Your task to perform on an android device: Open Google Maps Image 0: 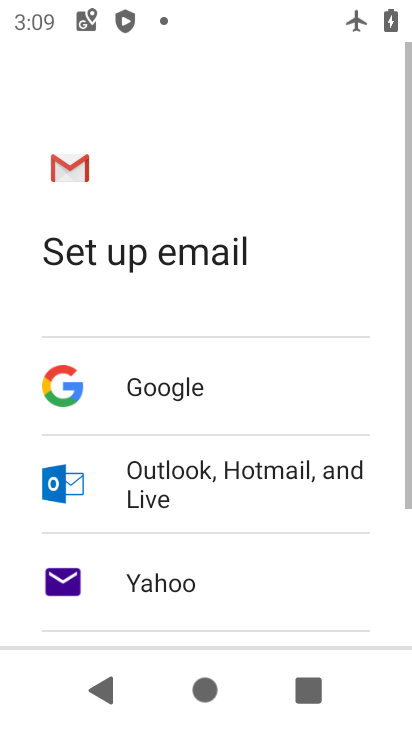
Step 0: press home button
Your task to perform on an android device: Open Google Maps Image 1: 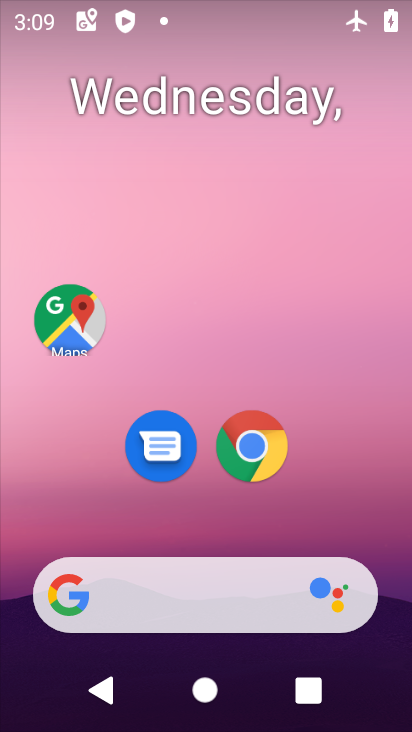
Step 1: click (70, 323)
Your task to perform on an android device: Open Google Maps Image 2: 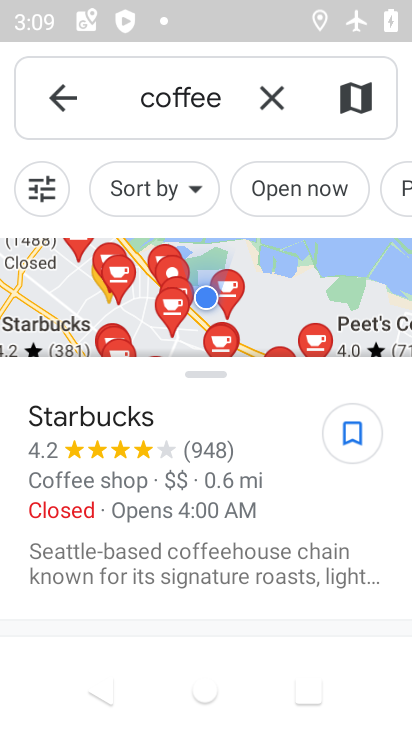
Step 2: task complete